Your task to perform on an android device: Open settings on Google Maps Image 0: 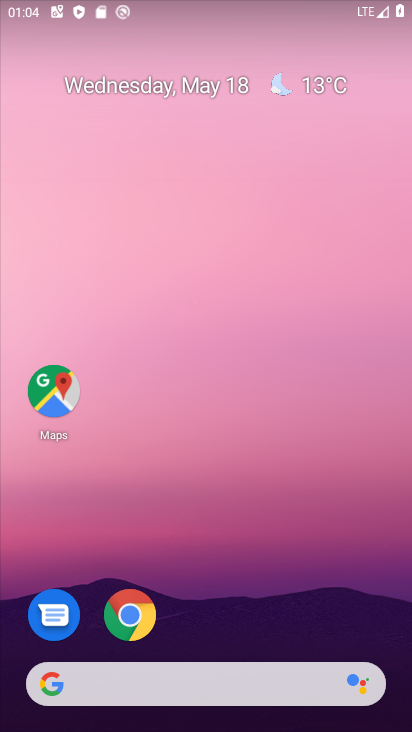
Step 0: press home button
Your task to perform on an android device: Open settings on Google Maps Image 1: 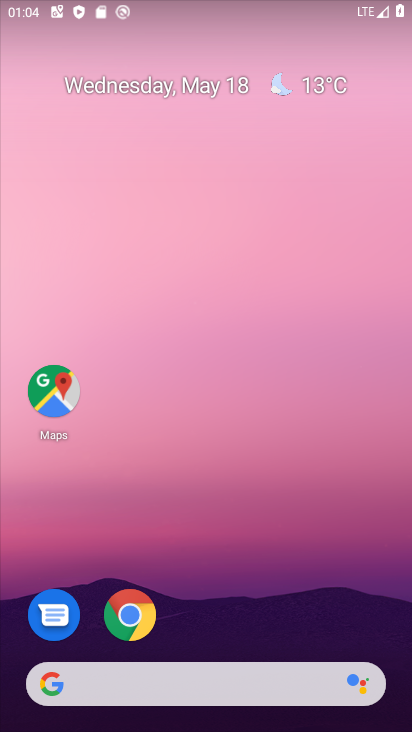
Step 1: click (50, 396)
Your task to perform on an android device: Open settings on Google Maps Image 2: 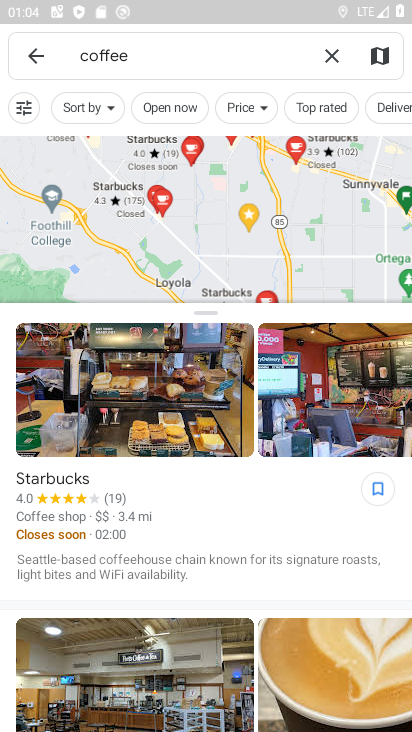
Step 2: click (31, 53)
Your task to perform on an android device: Open settings on Google Maps Image 3: 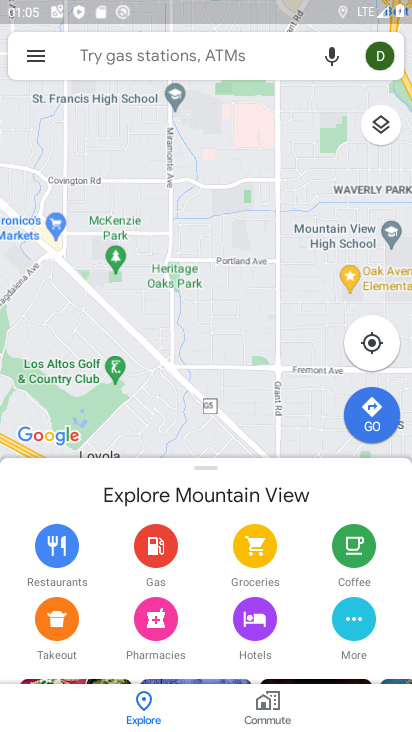
Step 3: click (37, 57)
Your task to perform on an android device: Open settings on Google Maps Image 4: 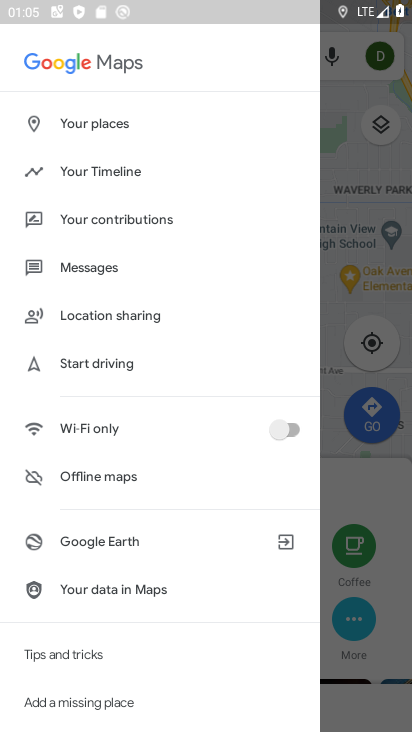
Step 4: drag from (123, 676) to (201, 251)
Your task to perform on an android device: Open settings on Google Maps Image 5: 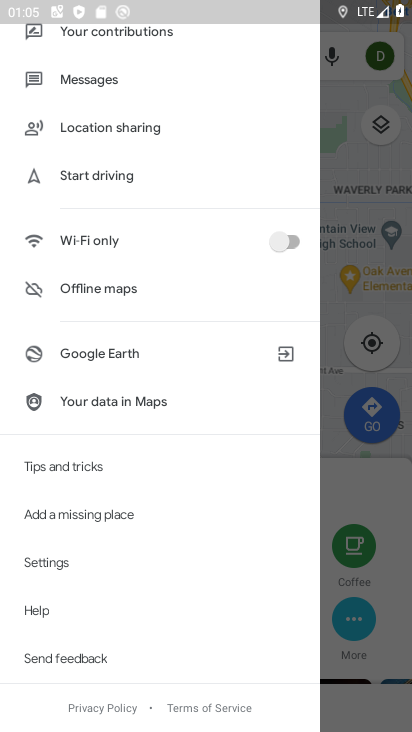
Step 5: click (62, 568)
Your task to perform on an android device: Open settings on Google Maps Image 6: 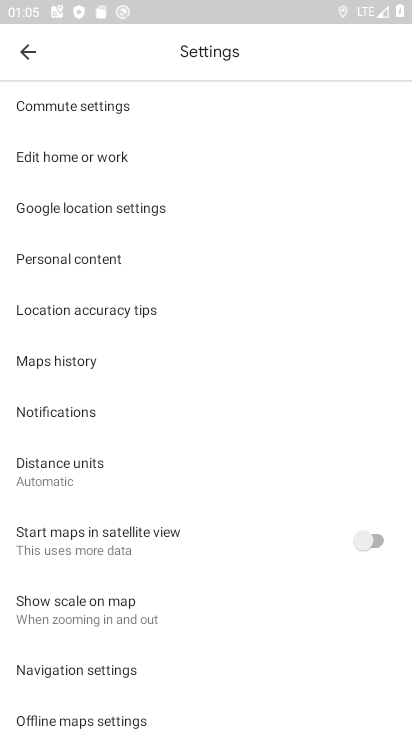
Step 6: task complete